Your task to perform on an android device: open chrome privacy settings Image 0: 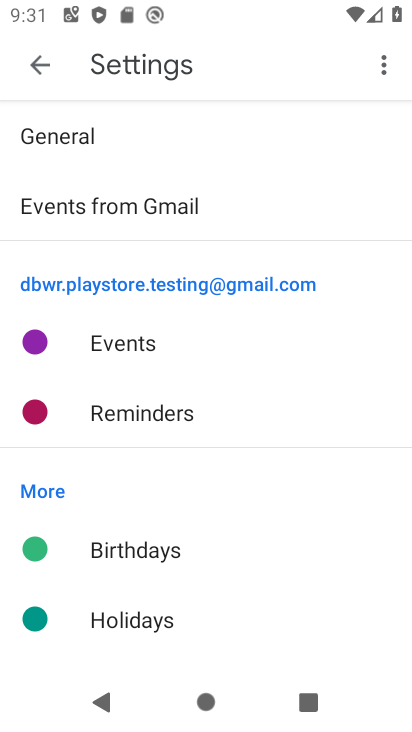
Step 0: press home button
Your task to perform on an android device: open chrome privacy settings Image 1: 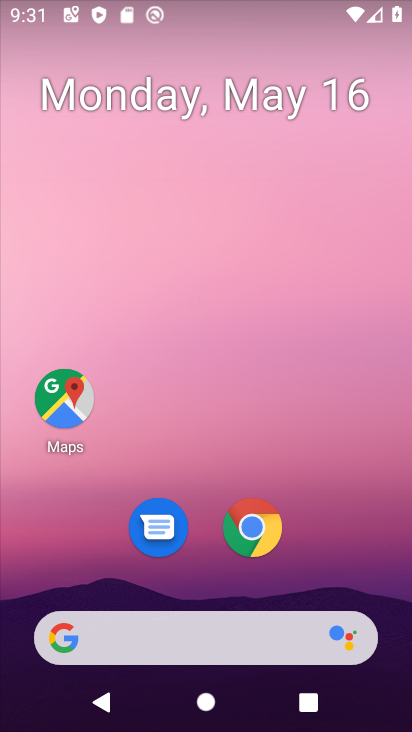
Step 1: click (253, 527)
Your task to perform on an android device: open chrome privacy settings Image 2: 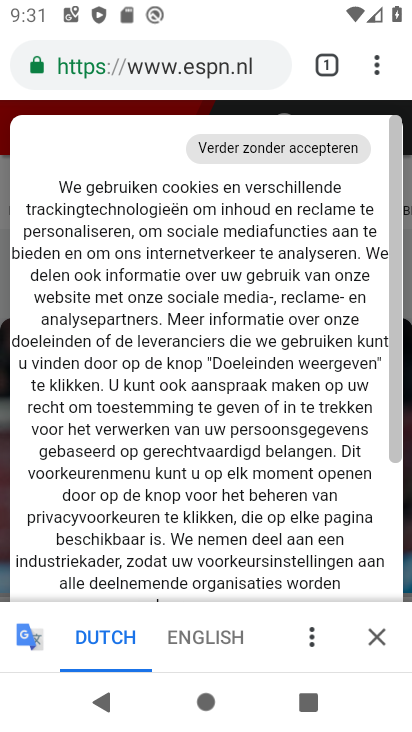
Step 2: click (376, 66)
Your task to perform on an android device: open chrome privacy settings Image 3: 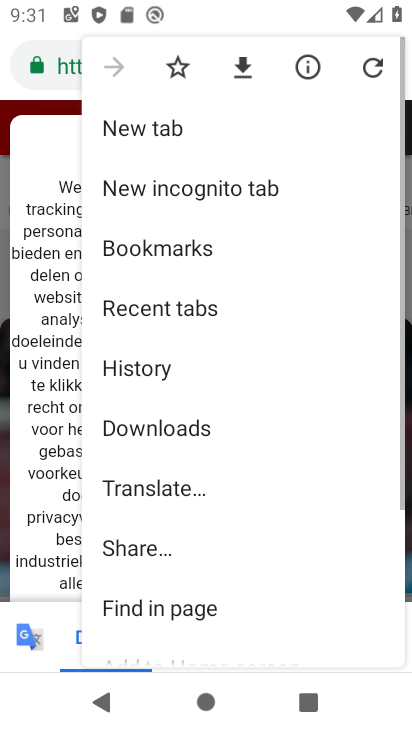
Step 3: drag from (170, 574) to (179, 126)
Your task to perform on an android device: open chrome privacy settings Image 4: 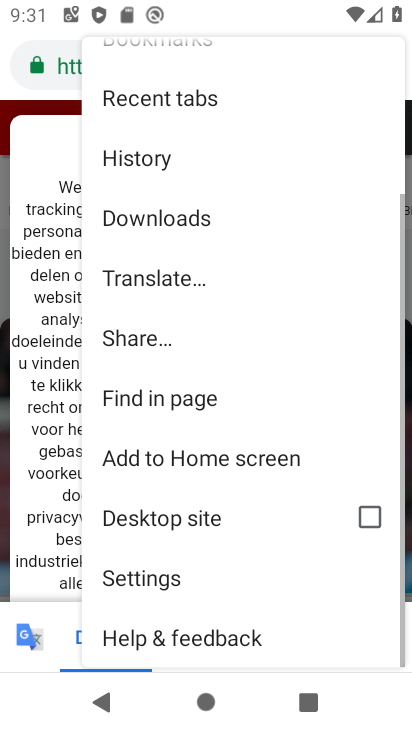
Step 4: click (137, 570)
Your task to perform on an android device: open chrome privacy settings Image 5: 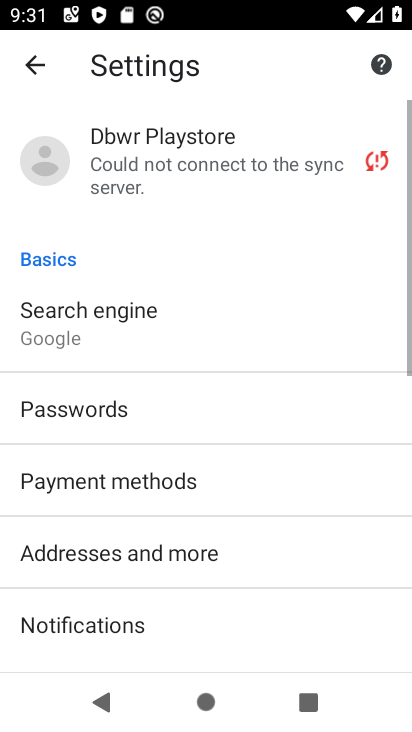
Step 5: drag from (230, 543) to (247, 102)
Your task to perform on an android device: open chrome privacy settings Image 6: 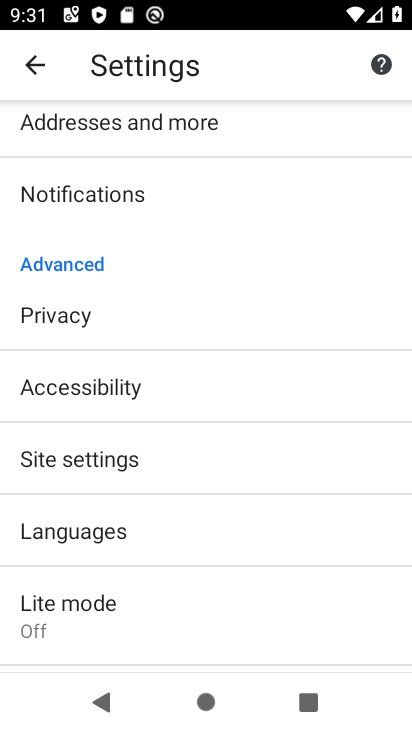
Step 6: click (47, 312)
Your task to perform on an android device: open chrome privacy settings Image 7: 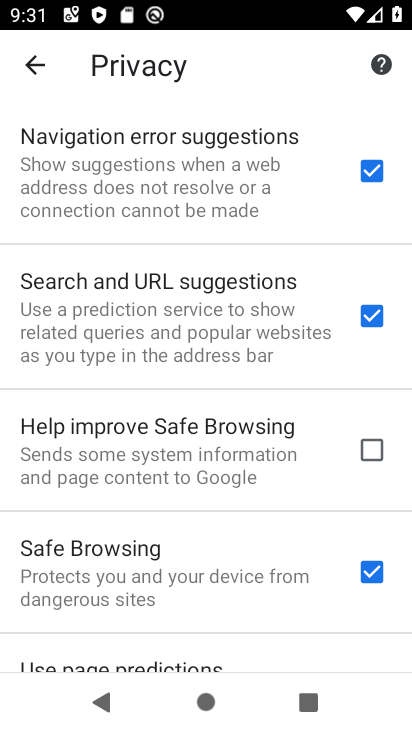
Step 7: task complete